Your task to perform on an android device: Go to notification settings Image 0: 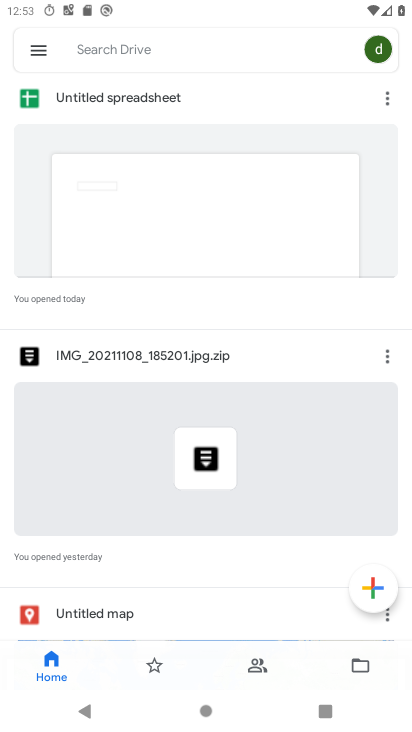
Step 0: press home button
Your task to perform on an android device: Go to notification settings Image 1: 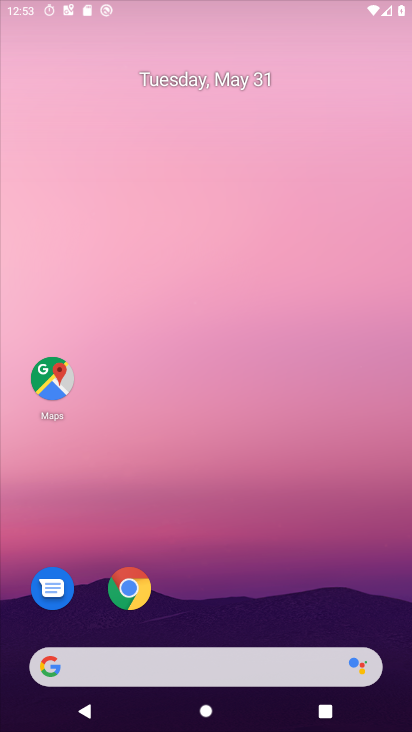
Step 1: drag from (281, 621) to (322, 36)
Your task to perform on an android device: Go to notification settings Image 2: 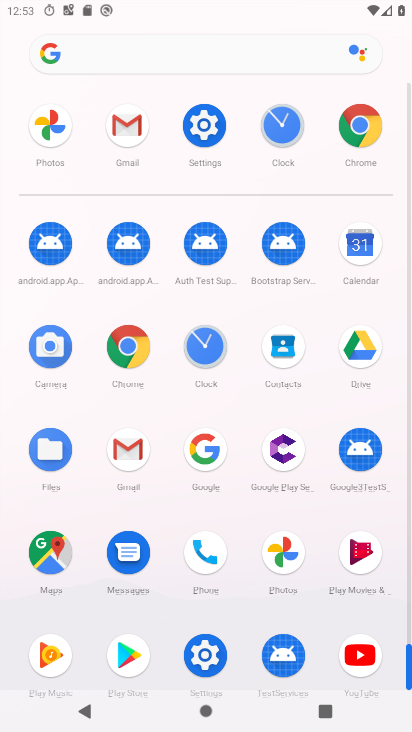
Step 2: click (195, 121)
Your task to perform on an android device: Go to notification settings Image 3: 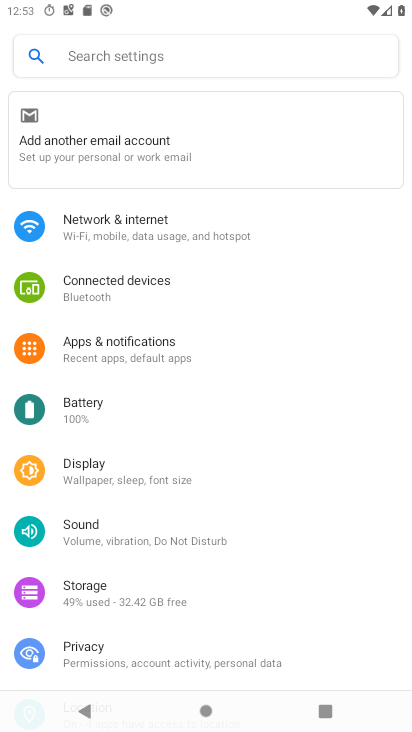
Step 3: click (152, 355)
Your task to perform on an android device: Go to notification settings Image 4: 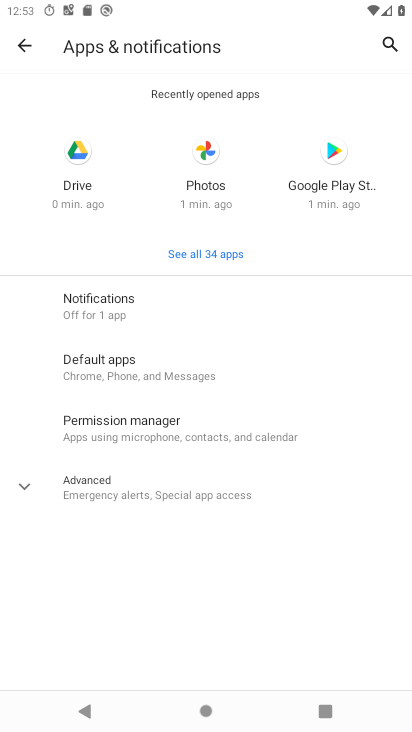
Step 4: click (122, 328)
Your task to perform on an android device: Go to notification settings Image 5: 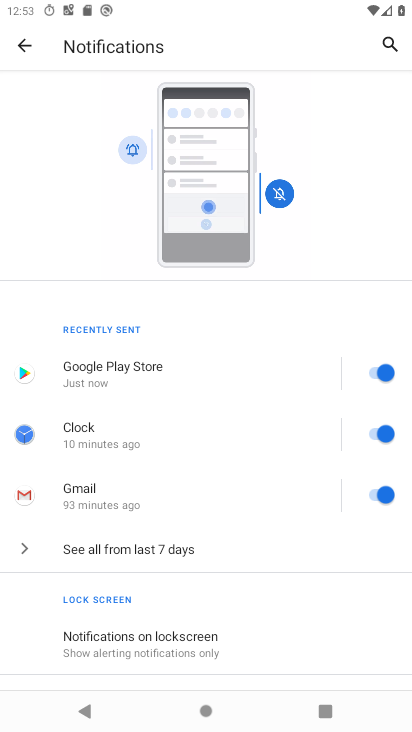
Step 5: task complete